Your task to perform on an android device: Add "jbl flip 4" to the cart on bestbuy, then select checkout. Image 0: 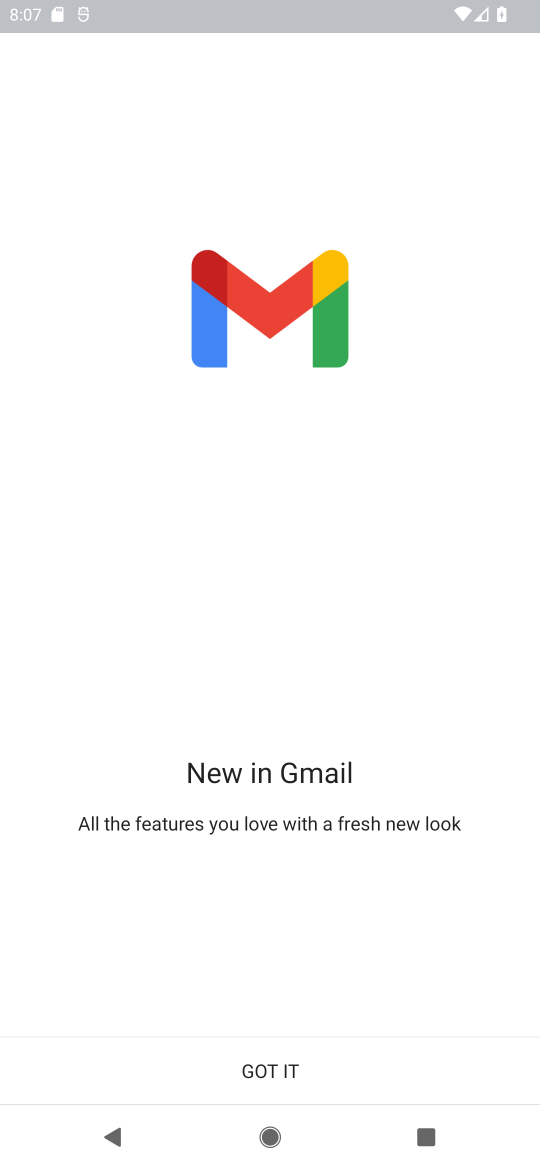
Step 0: press home button
Your task to perform on an android device: Add "jbl flip 4" to the cart on bestbuy, then select checkout. Image 1: 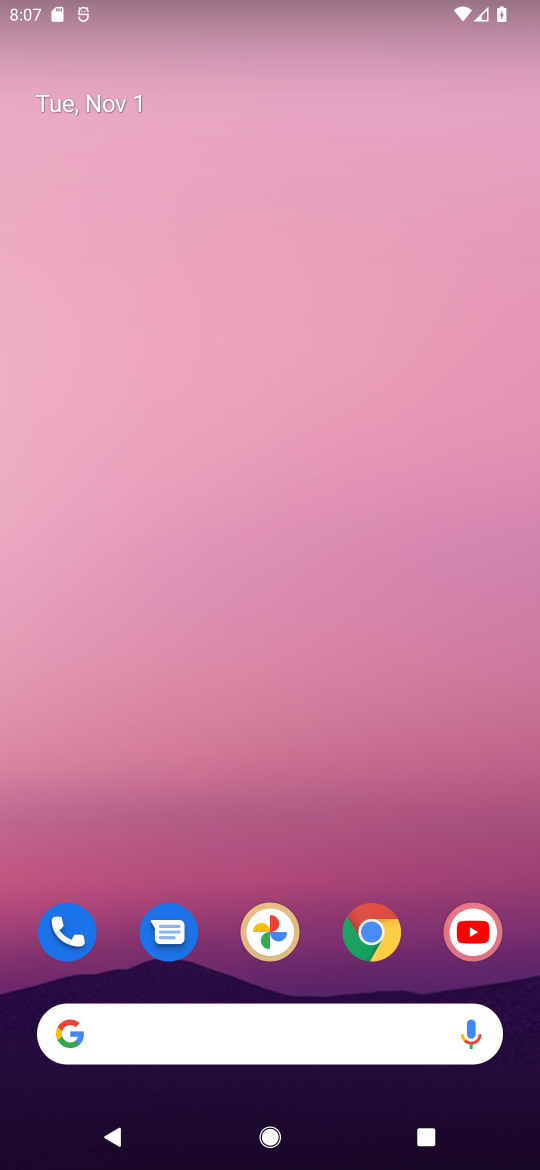
Step 1: click (367, 935)
Your task to perform on an android device: Add "jbl flip 4" to the cart on bestbuy, then select checkout. Image 2: 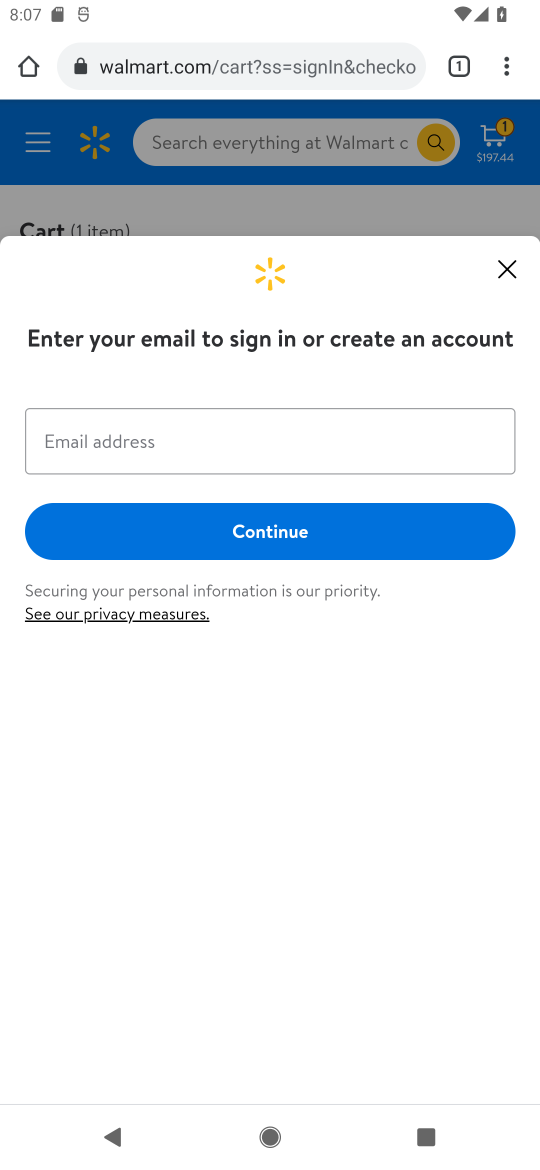
Step 2: click (513, 269)
Your task to perform on an android device: Add "jbl flip 4" to the cart on bestbuy, then select checkout. Image 3: 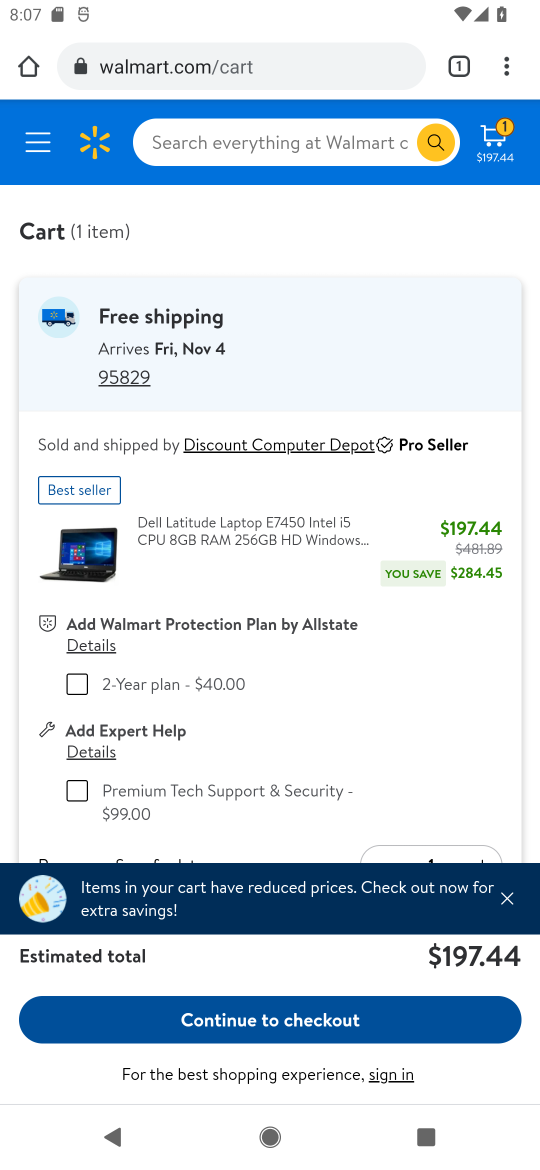
Step 3: click (200, 76)
Your task to perform on an android device: Add "jbl flip 4" to the cart on bestbuy, then select checkout. Image 4: 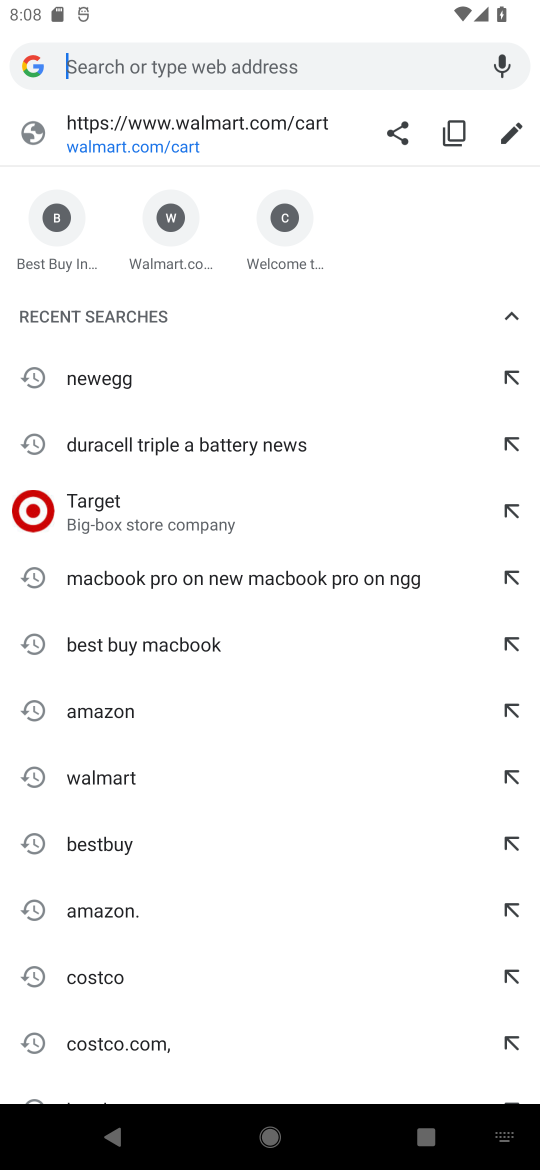
Step 4: type "bestbuy.com"
Your task to perform on an android device: Add "jbl flip 4" to the cart on bestbuy, then select checkout. Image 5: 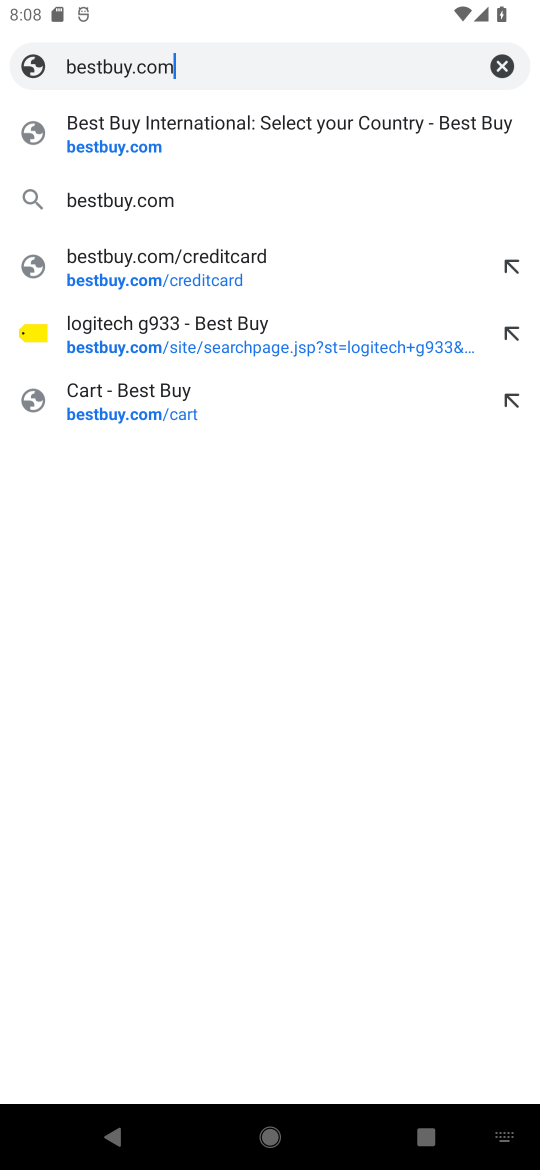
Step 5: click (103, 150)
Your task to perform on an android device: Add "jbl flip 4" to the cart on bestbuy, then select checkout. Image 6: 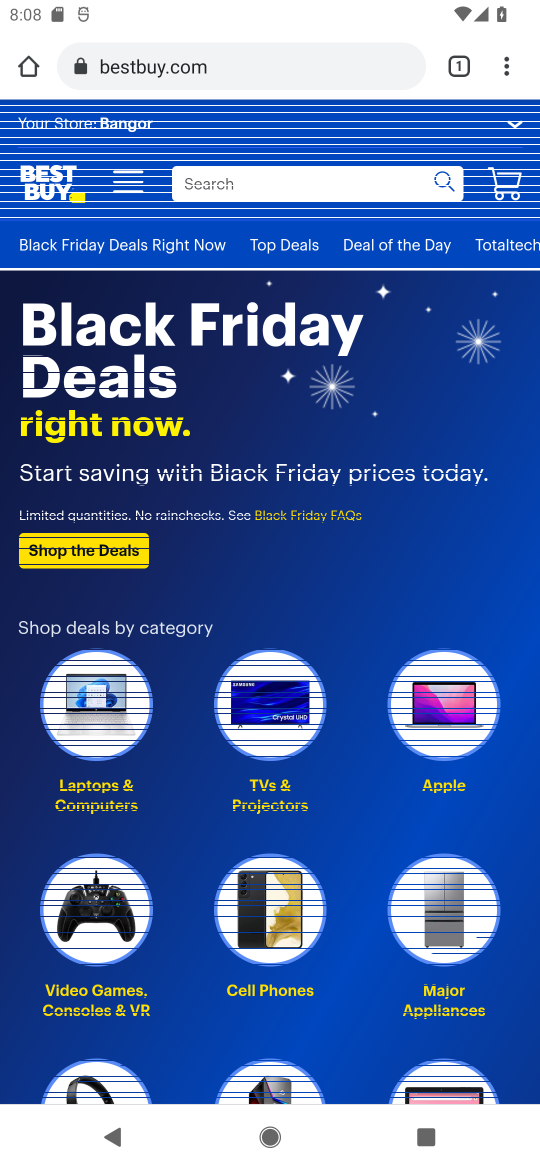
Step 6: click (437, 181)
Your task to perform on an android device: Add "jbl flip 4" to the cart on bestbuy, then select checkout. Image 7: 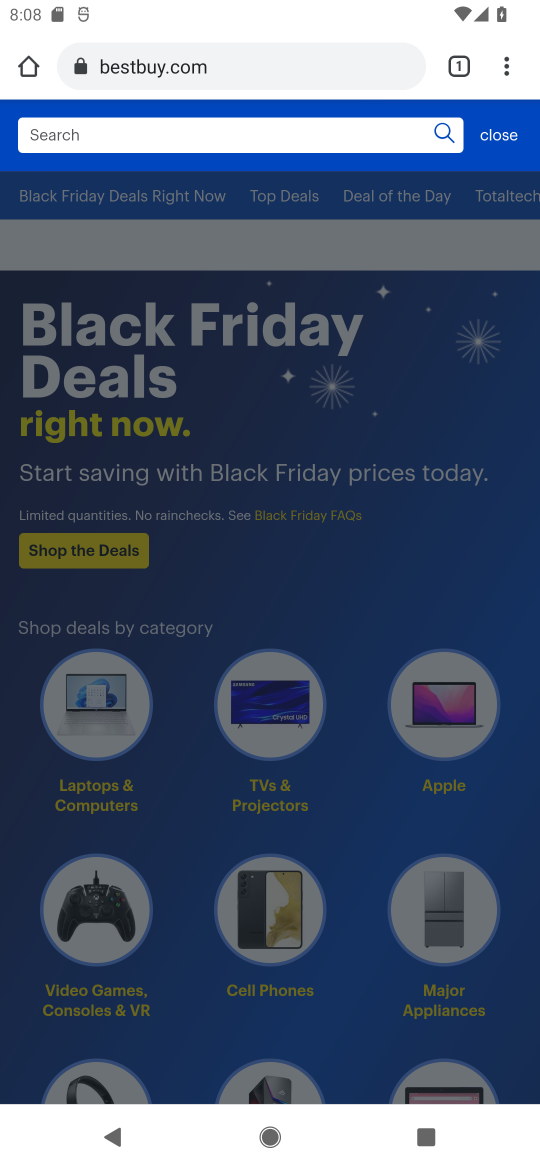
Step 7: click (47, 137)
Your task to perform on an android device: Add "jbl flip 4" to the cart on bestbuy, then select checkout. Image 8: 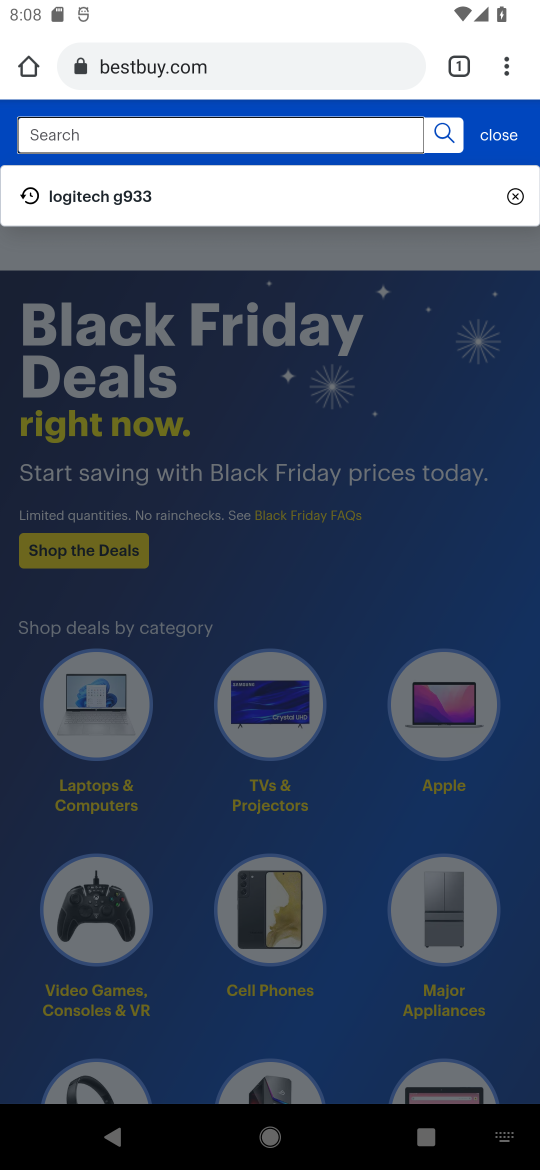
Step 8: type "jbl flip 4"
Your task to perform on an android device: Add "jbl flip 4" to the cart on bestbuy, then select checkout. Image 9: 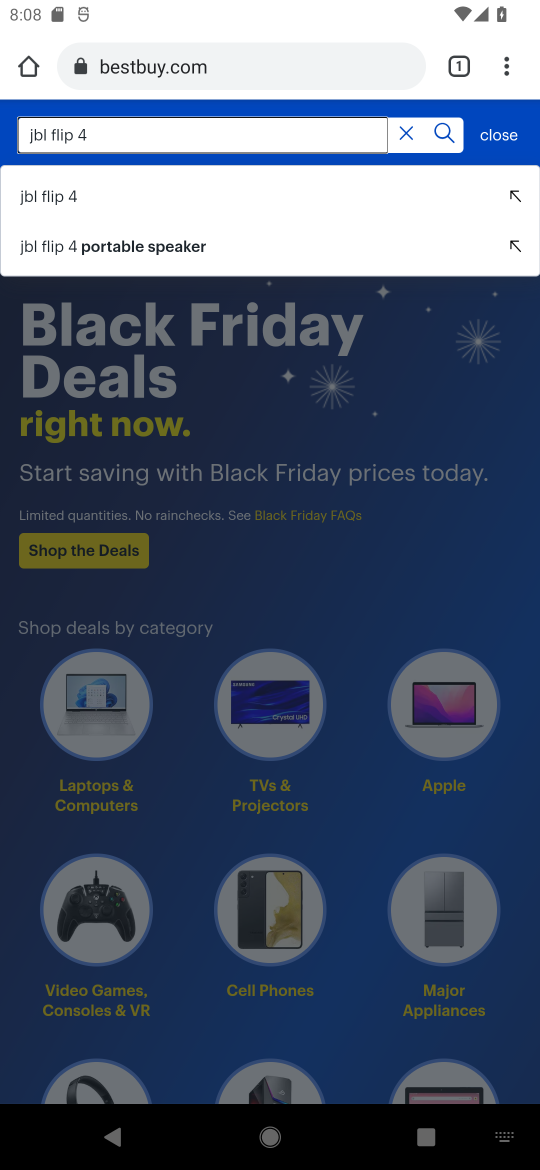
Step 9: click (40, 204)
Your task to perform on an android device: Add "jbl flip 4" to the cart on bestbuy, then select checkout. Image 10: 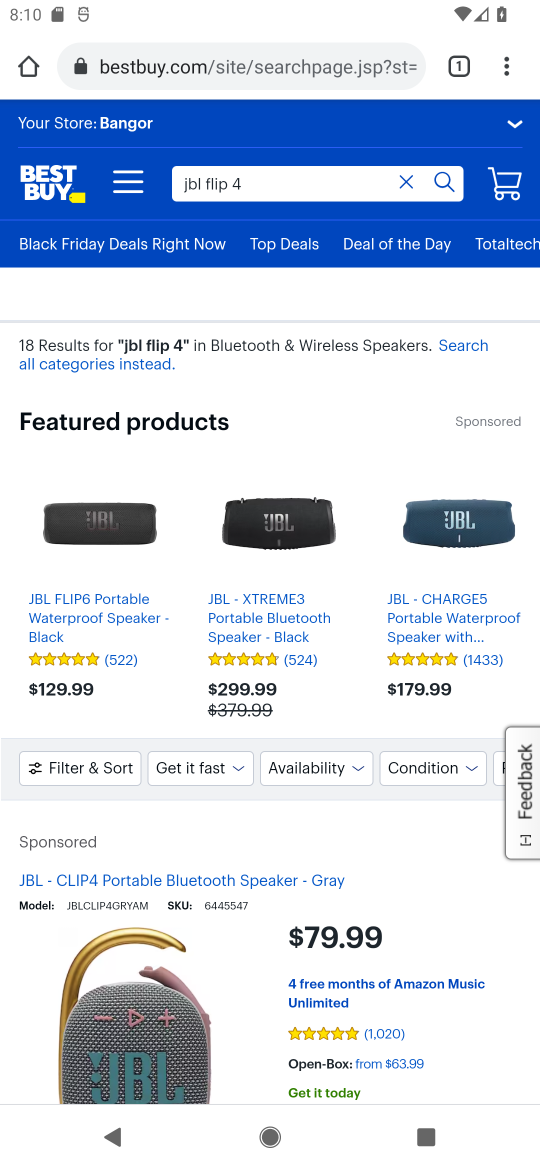
Step 10: task complete